Your task to perform on an android device: change your default location settings in chrome Image 0: 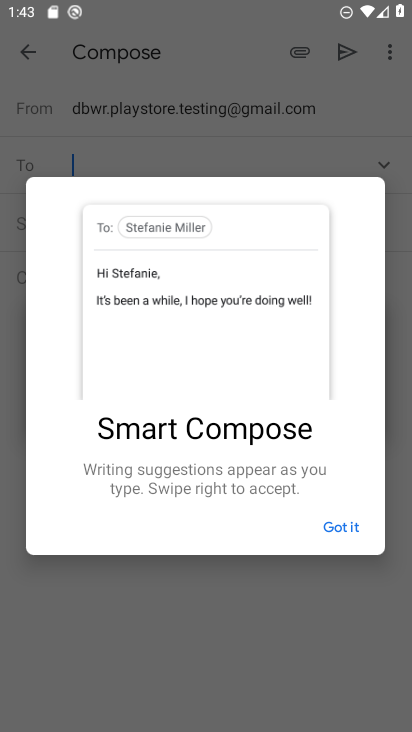
Step 0: press home button
Your task to perform on an android device: change your default location settings in chrome Image 1: 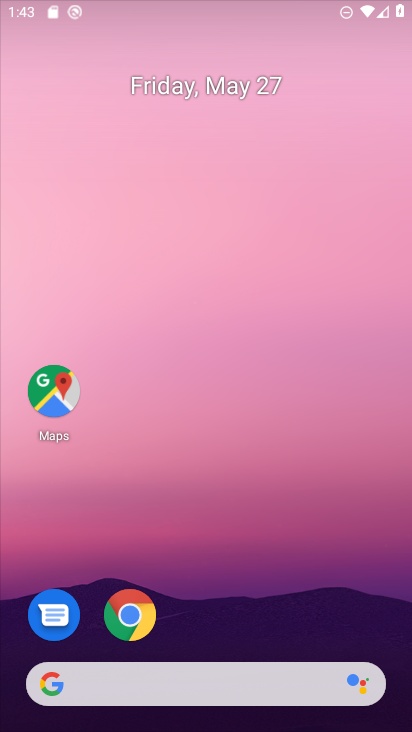
Step 1: drag from (228, 530) to (222, 215)
Your task to perform on an android device: change your default location settings in chrome Image 2: 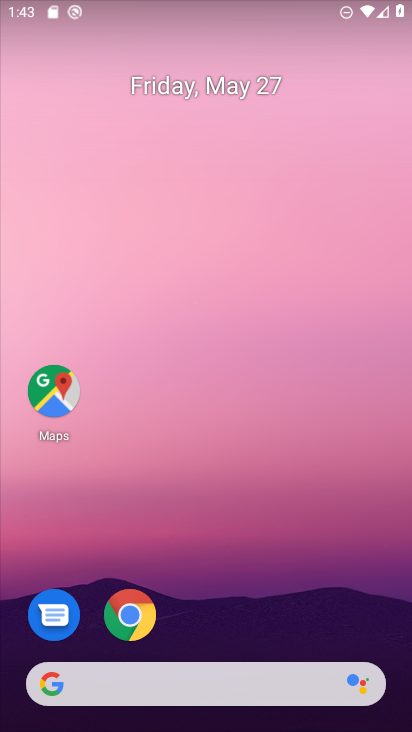
Step 2: drag from (232, 615) to (235, 120)
Your task to perform on an android device: change your default location settings in chrome Image 3: 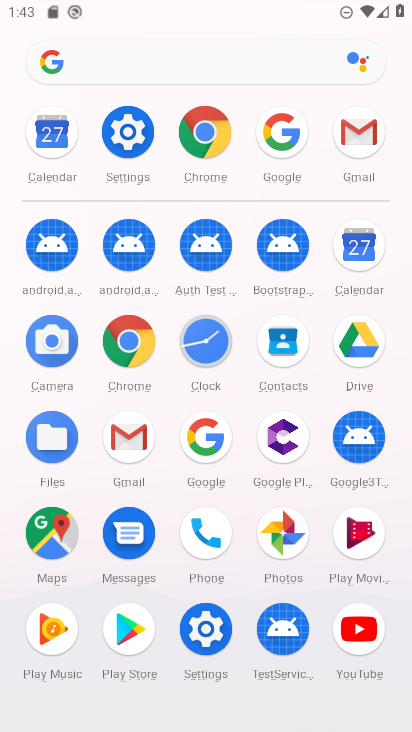
Step 3: click (132, 358)
Your task to perform on an android device: change your default location settings in chrome Image 4: 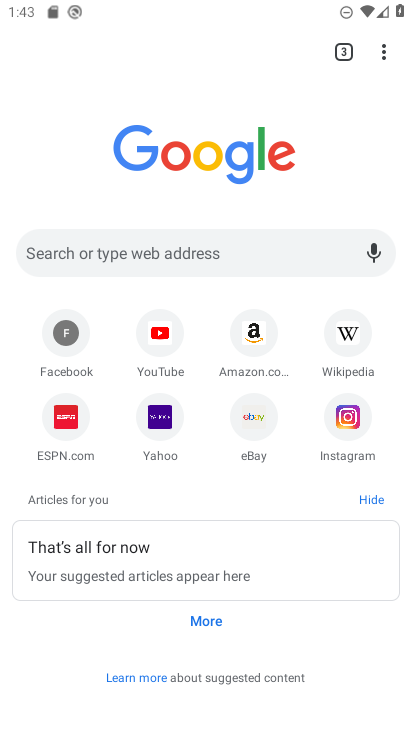
Step 4: click (385, 63)
Your task to perform on an android device: change your default location settings in chrome Image 5: 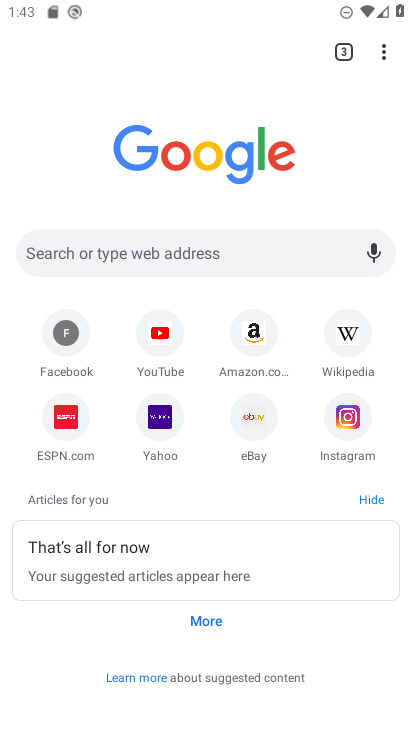
Step 5: click (385, 49)
Your task to perform on an android device: change your default location settings in chrome Image 6: 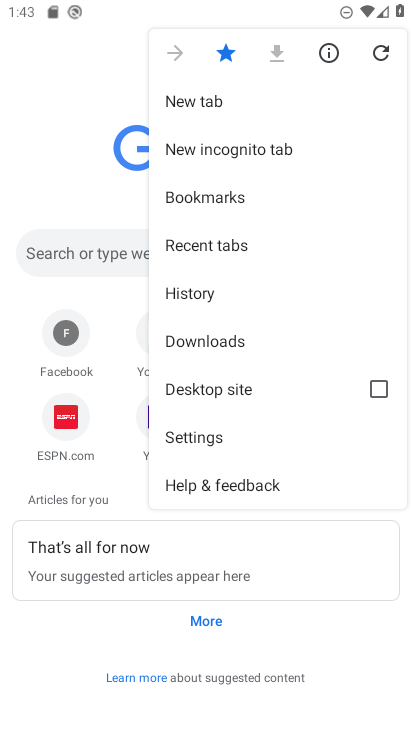
Step 6: click (234, 437)
Your task to perform on an android device: change your default location settings in chrome Image 7: 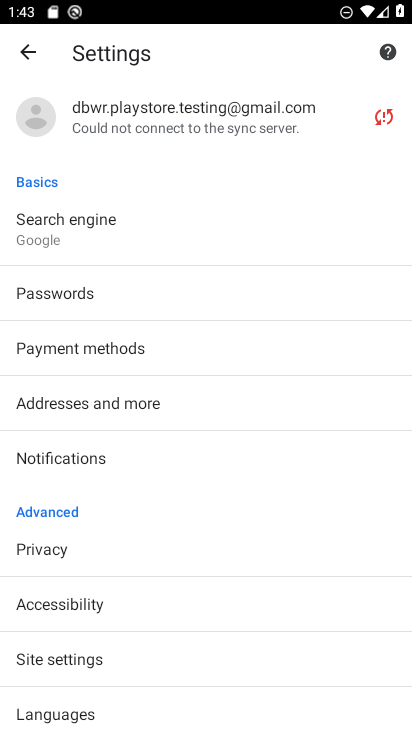
Step 7: drag from (127, 666) to (166, 317)
Your task to perform on an android device: change your default location settings in chrome Image 8: 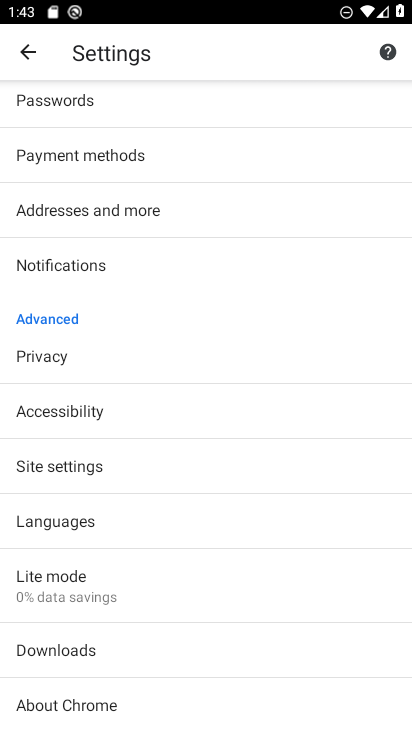
Step 8: click (144, 458)
Your task to perform on an android device: change your default location settings in chrome Image 9: 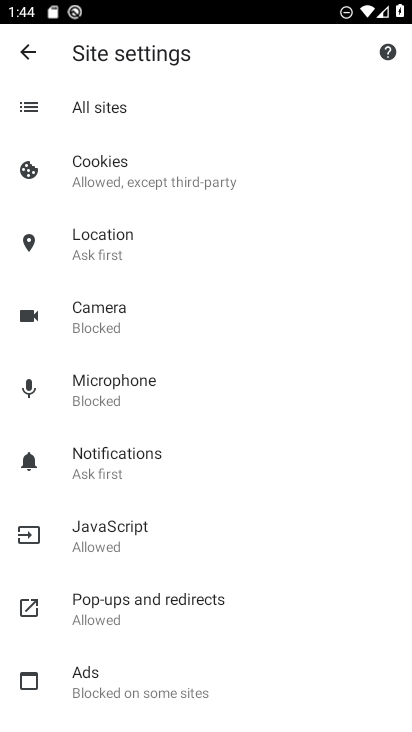
Step 9: drag from (183, 554) to (255, 447)
Your task to perform on an android device: change your default location settings in chrome Image 10: 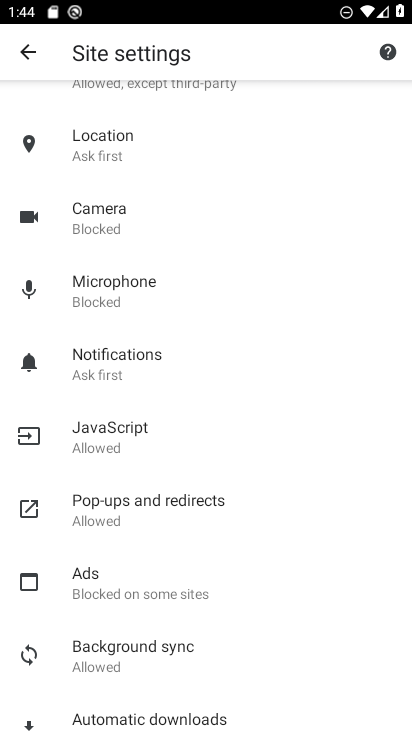
Step 10: click (152, 150)
Your task to perform on an android device: change your default location settings in chrome Image 11: 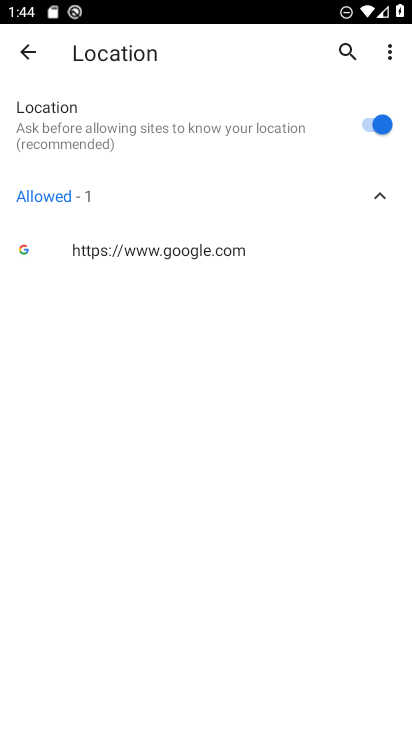
Step 11: click (390, 139)
Your task to perform on an android device: change your default location settings in chrome Image 12: 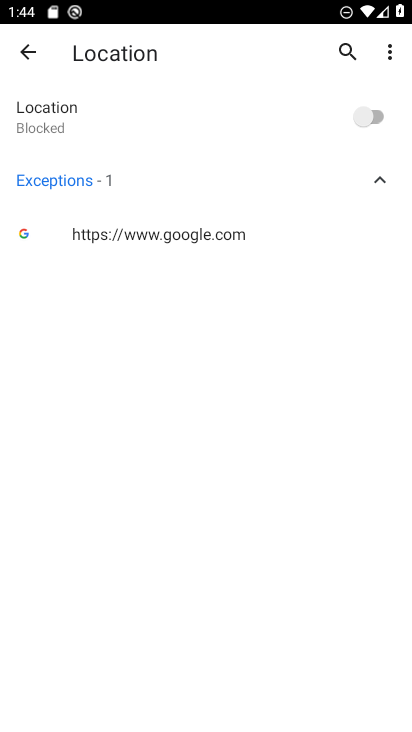
Step 12: task complete